Your task to perform on an android device: Check the news Image 0: 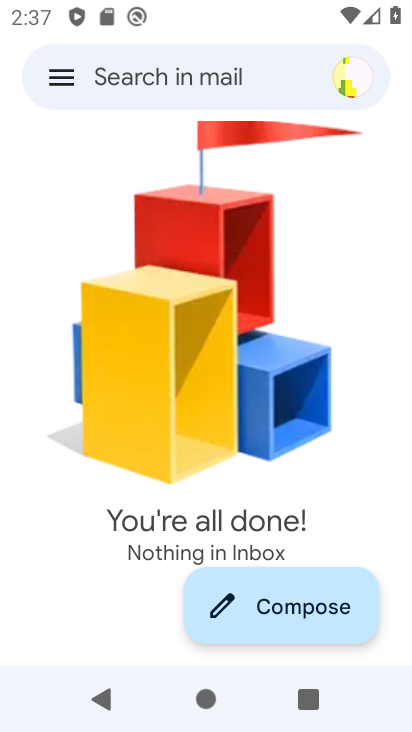
Step 0: press home button
Your task to perform on an android device: Check the news Image 1: 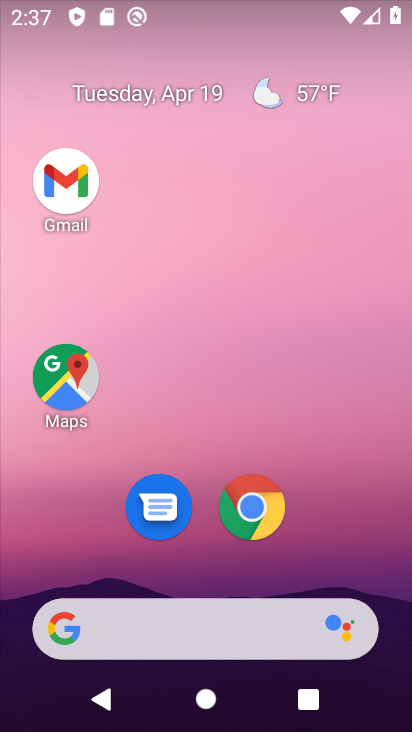
Step 1: drag from (199, 581) to (328, 130)
Your task to perform on an android device: Check the news Image 2: 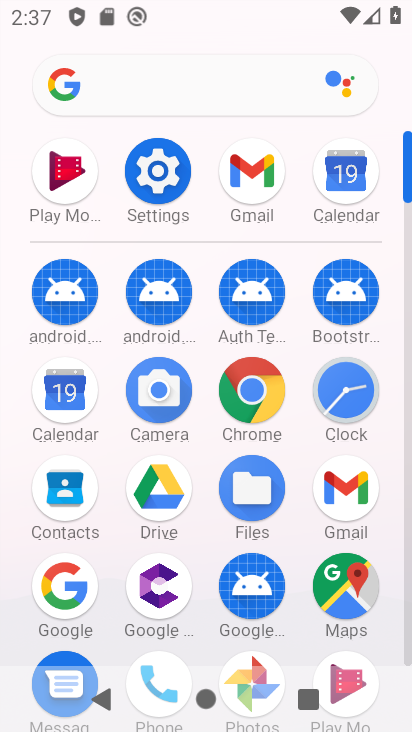
Step 2: click (67, 601)
Your task to perform on an android device: Check the news Image 3: 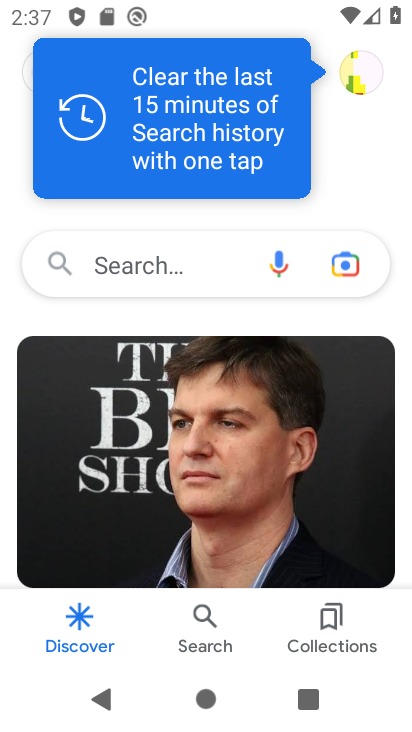
Step 3: click (205, 267)
Your task to perform on an android device: Check the news Image 4: 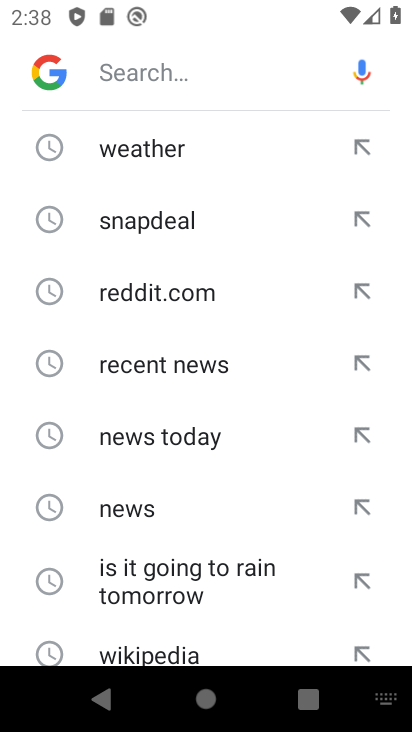
Step 4: click (162, 509)
Your task to perform on an android device: Check the news Image 5: 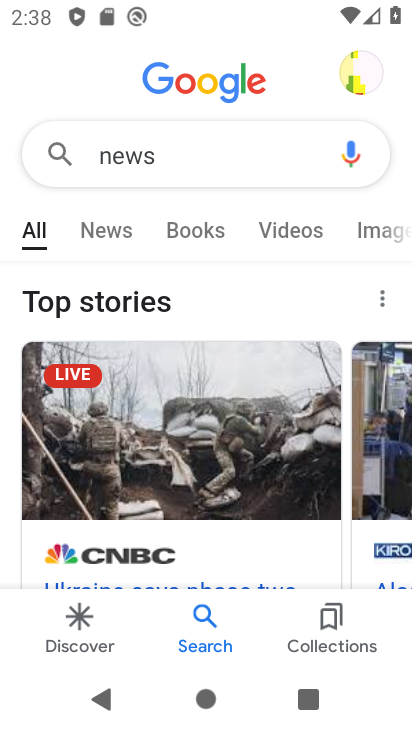
Step 5: task complete